Your task to perform on an android device: choose inbox layout in the gmail app Image 0: 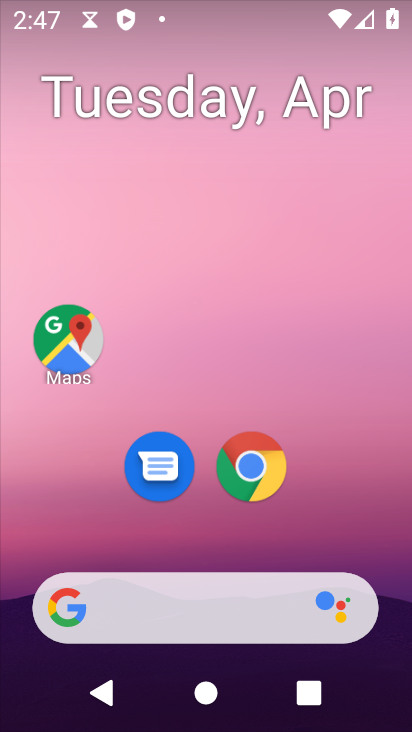
Step 0: drag from (361, 525) to (261, 49)
Your task to perform on an android device: choose inbox layout in the gmail app Image 1: 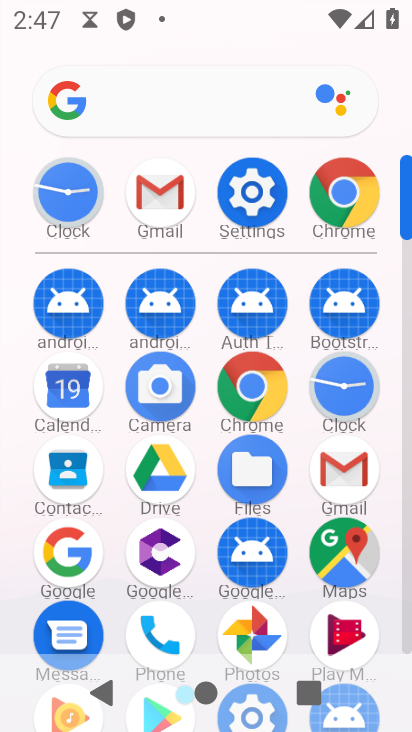
Step 1: drag from (13, 555) to (17, 320)
Your task to perform on an android device: choose inbox layout in the gmail app Image 2: 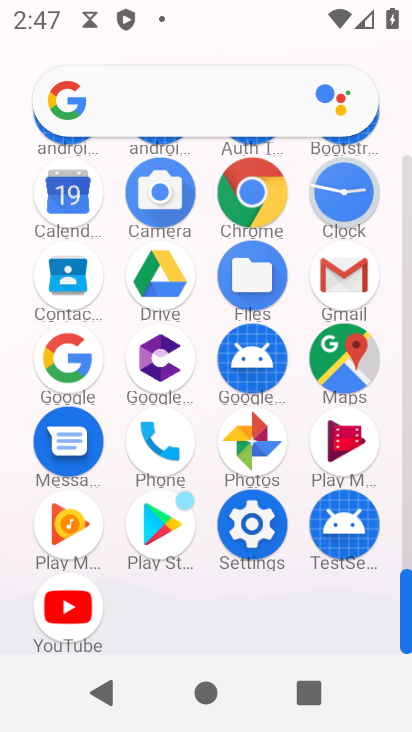
Step 2: click (340, 274)
Your task to perform on an android device: choose inbox layout in the gmail app Image 3: 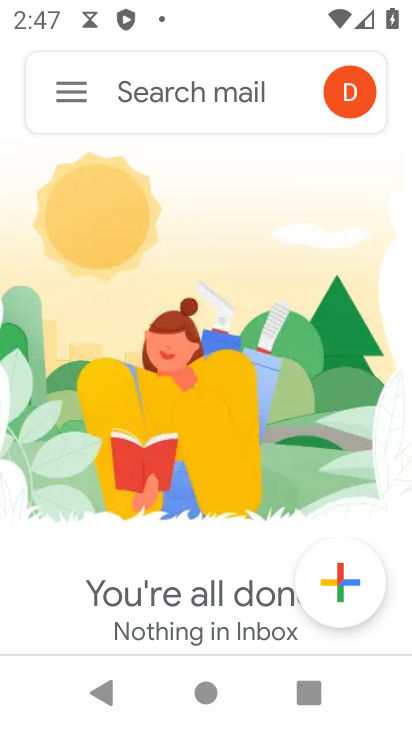
Step 3: click (60, 90)
Your task to perform on an android device: choose inbox layout in the gmail app Image 4: 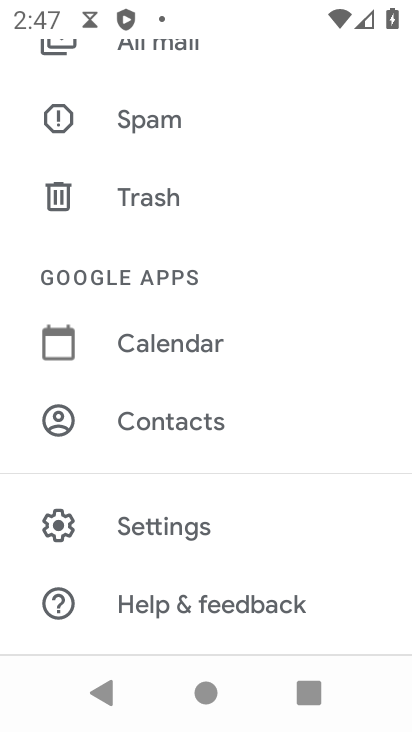
Step 4: click (160, 517)
Your task to perform on an android device: choose inbox layout in the gmail app Image 5: 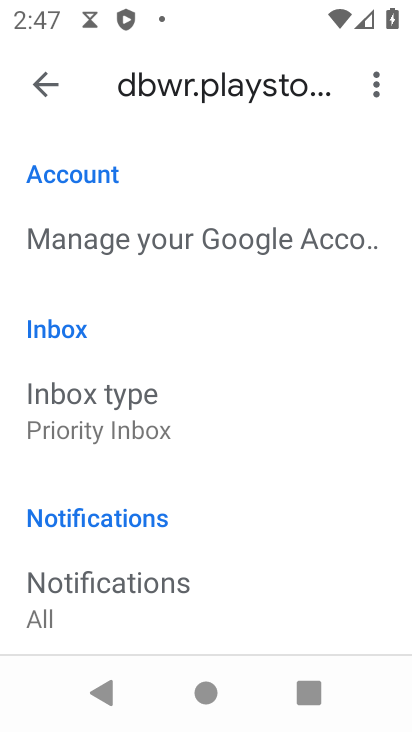
Step 5: click (147, 392)
Your task to perform on an android device: choose inbox layout in the gmail app Image 6: 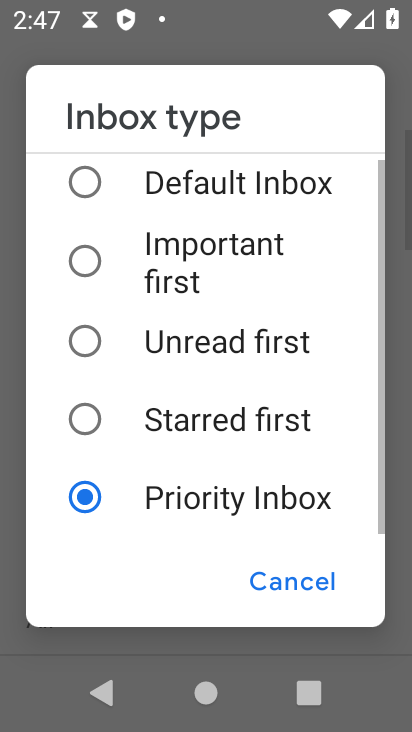
Step 6: click (159, 348)
Your task to perform on an android device: choose inbox layout in the gmail app Image 7: 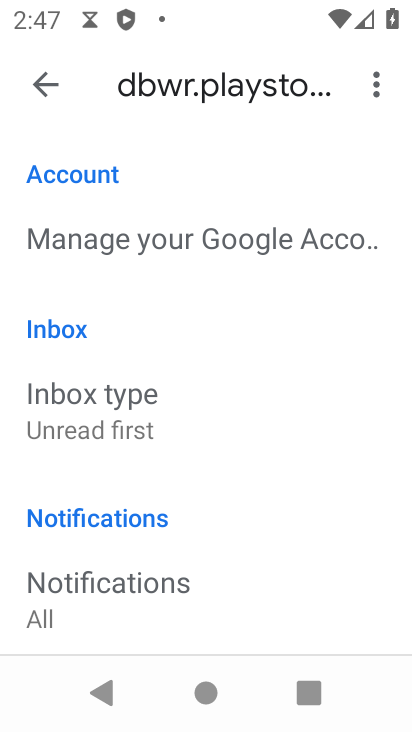
Step 7: task complete